Your task to perform on an android device: change the clock display to show seconds Image 0: 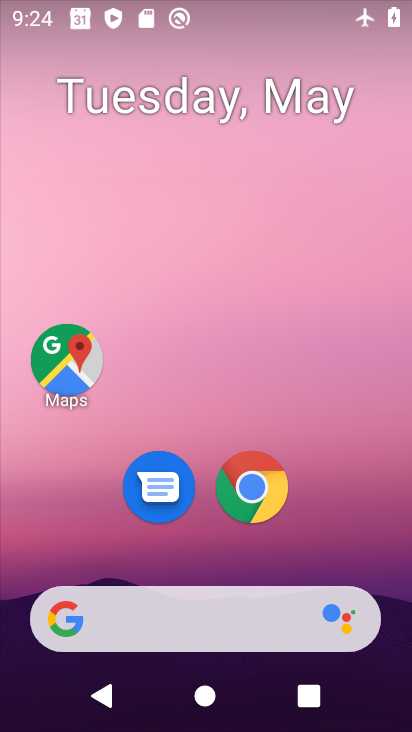
Step 0: drag from (201, 460) to (204, 55)
Your task to perform on an android device: change the clock display to show seconds Image 1: 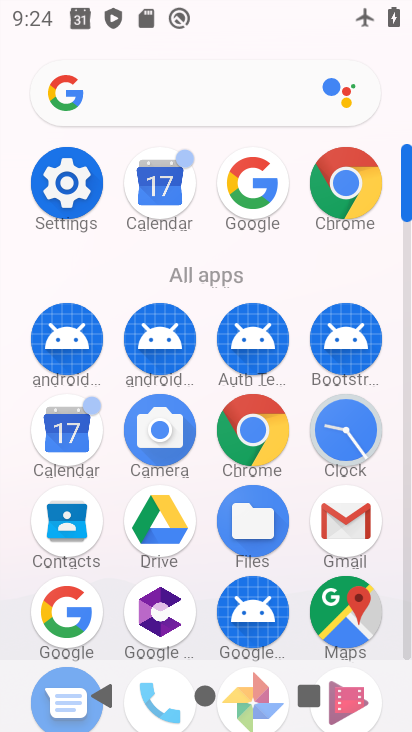
Step 1: click (357, 429)
Your task to perform on an android device: change the clock display to show seconds Image 2: 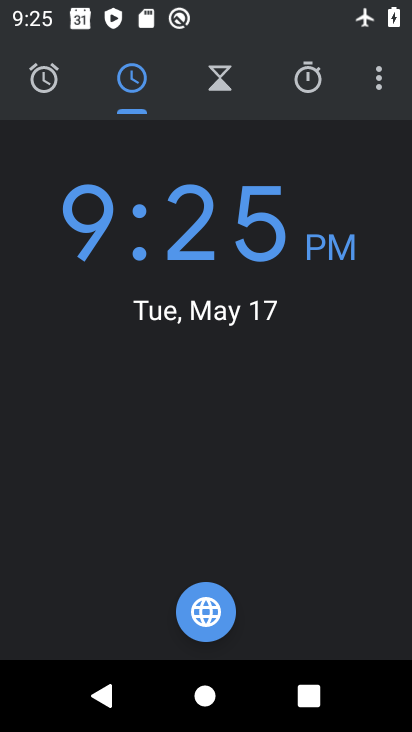
Step 2: click (369, 75)
Your task to perform on an android device: change the clock display to show seconds Image 3: 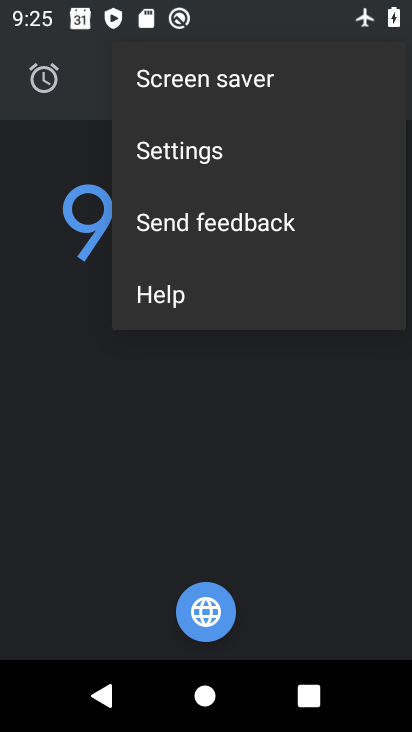
Step 3: click (227, 146)
Your task to perform on an android device: change the clock display to show seconds Image 4: 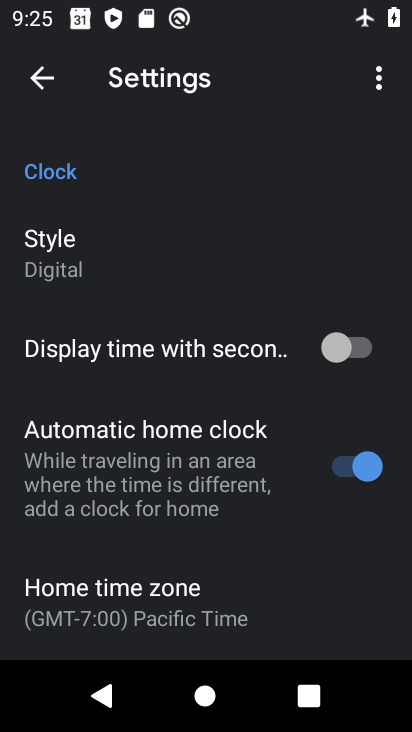
Step 4: click (310, 345)
Your task to perform on an android device: change the clock display to show seconds Image 5: 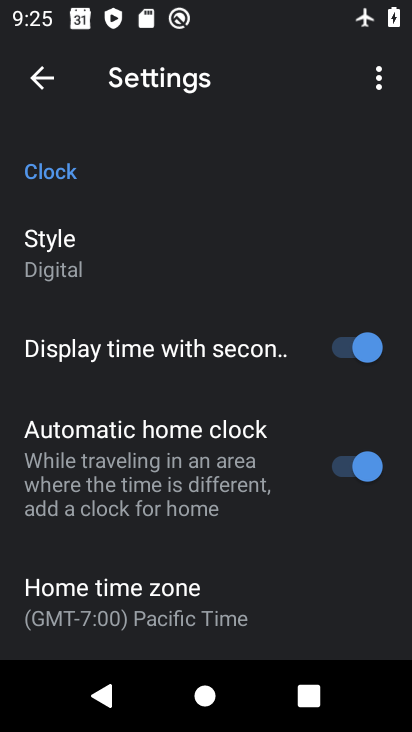
Step 5: task complete